Your task to perform on an android device: check battery use Image 0: 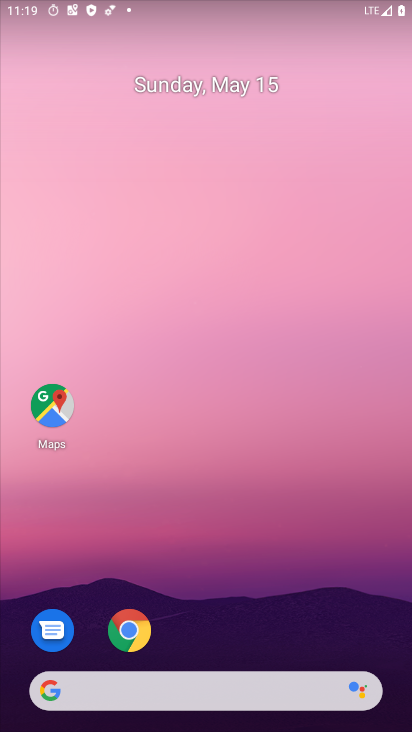
Step 0: drag from (210, 652) to (261, 133)
Your task to perform on an android device: check battery use Image 1: 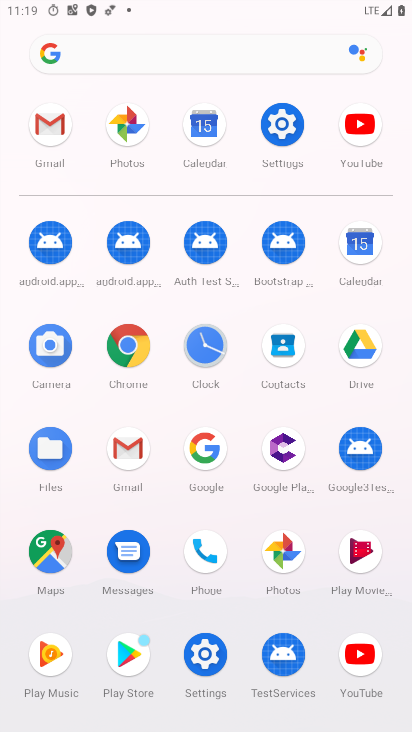
Step 1: click (290, 122)
Your task to perform on an android device: check battery use Image 2: 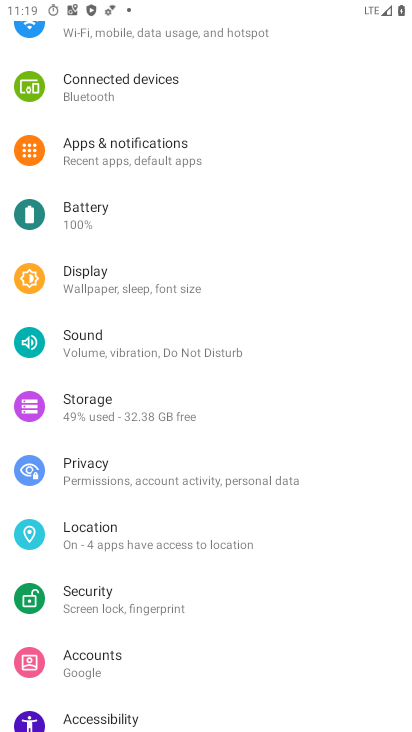
Step 2: click (87, 218)
Your task to perform on an android device: check battery use Image 3: 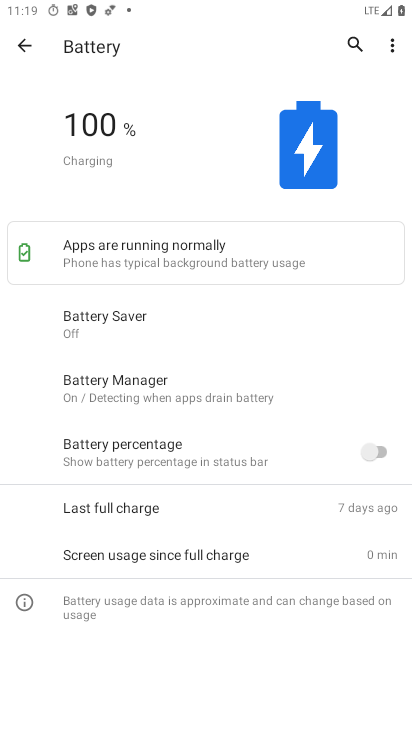
Step 3: click (390, 45)
Your task to perform on an android device: check battery use Image 4: 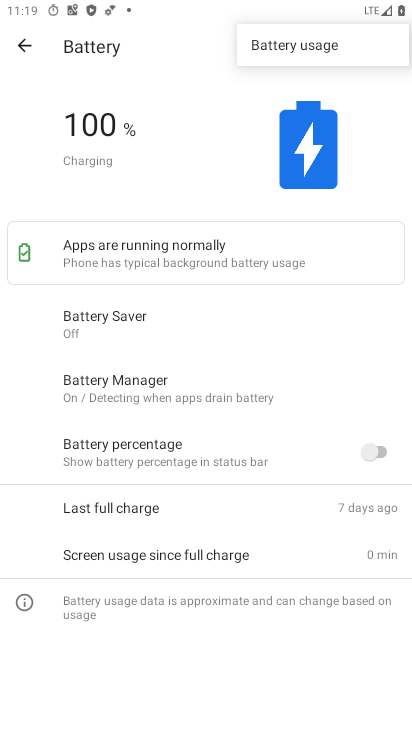
Step 4: click (337, 58)
Your task to perform on an android device: check battery use Image 5: 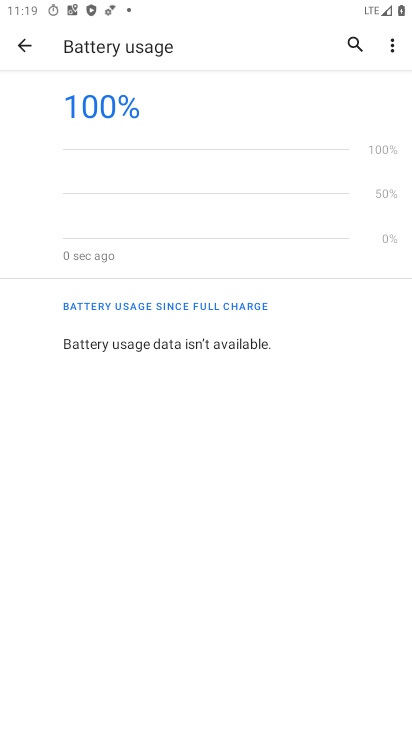
Step 5: task complete